Your task to perform on an android device: Go to Amazon Image 0: 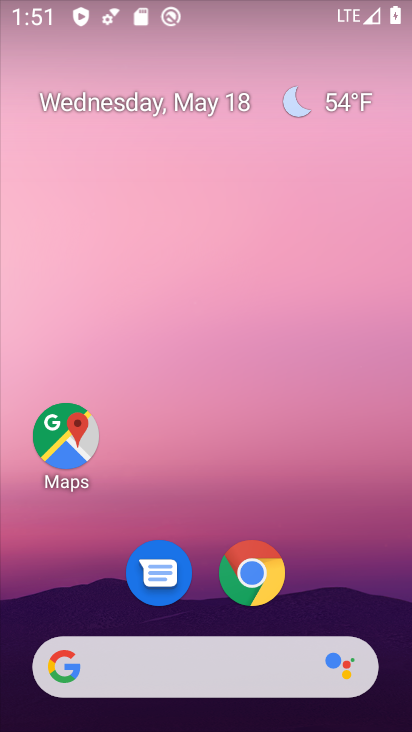
Step 0: click (244, 587)
Your task to perform on an android device: Go to Amazon Image 1: 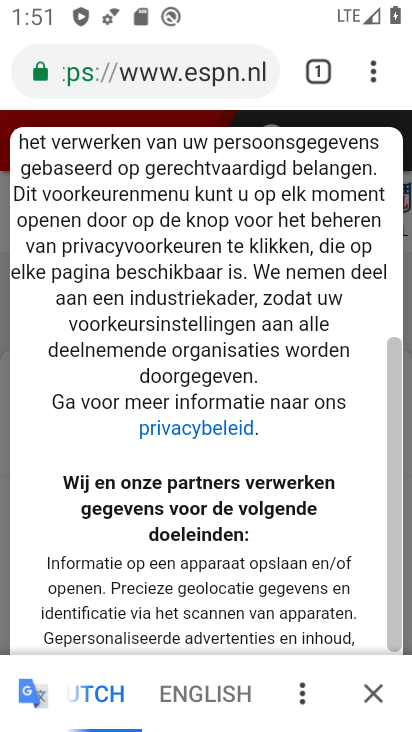
Step 1: click (222, 57)
Your task to perform on an android device: Go to Amazon Image 2: 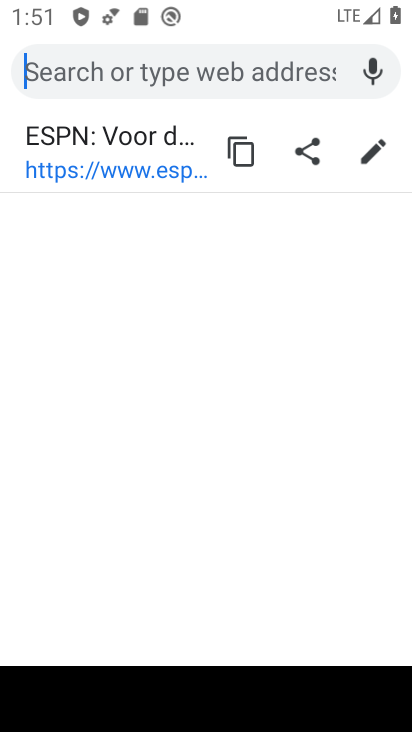
Step 2: type "amazon"
Your task to perform on an android device: Go to Amazon Image 3: 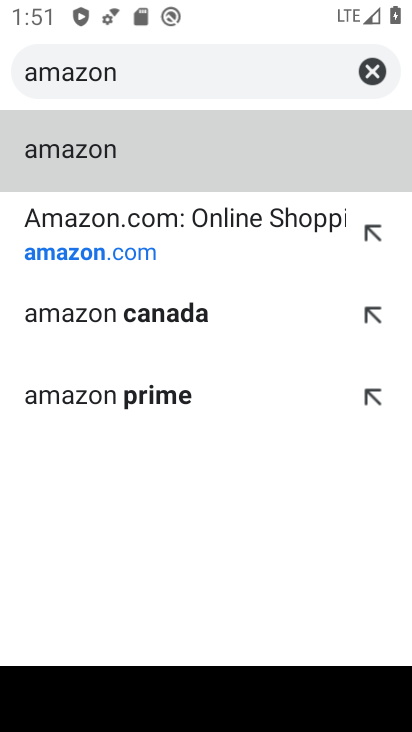
Step 3: click (219, 212)
Your task to perform on an android device: Go to Amazon Image 4: 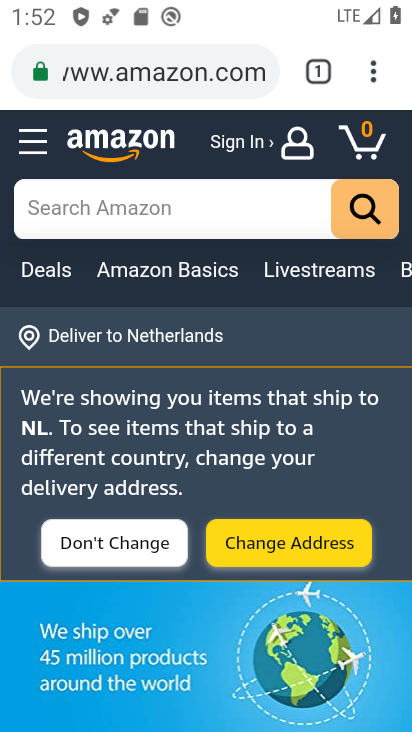
Step 4: task complete